Your task to perform on an android device: Search for the best rated headphones on amazon.com Image 0: 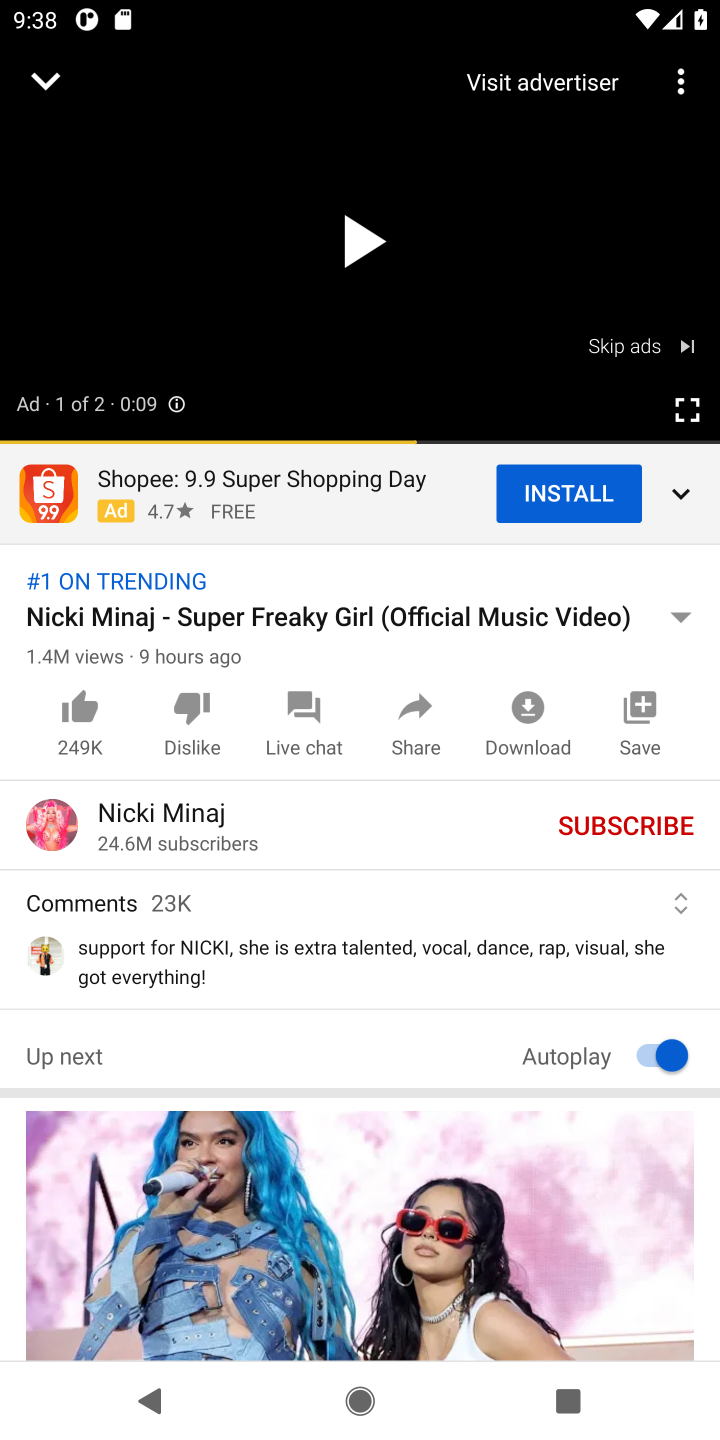
Step 0: press back button
Your task to perform on an android device: Search for the best rated headphones on amazon.com Image 1: 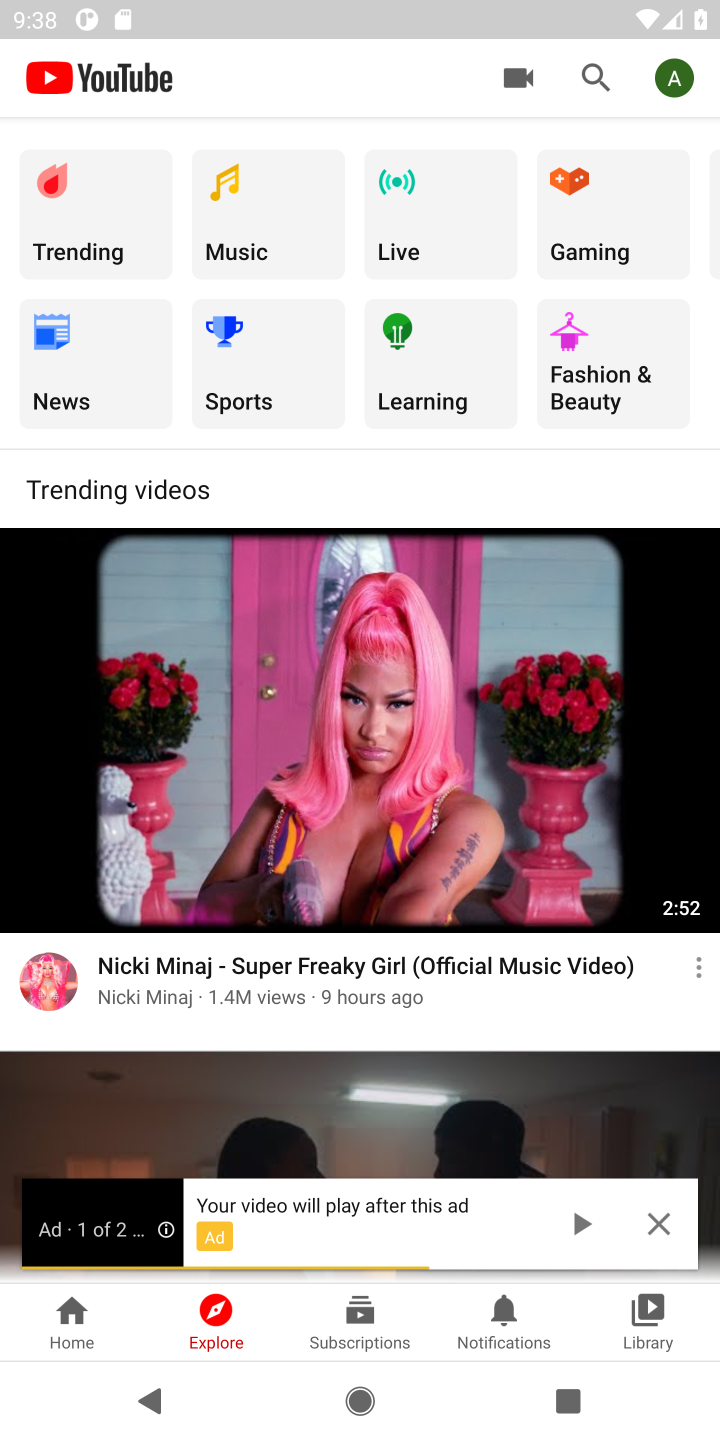
Step 1: press back button
Your task to perform on an android device: Search for the best rated headphones on amazon.com Image 2: 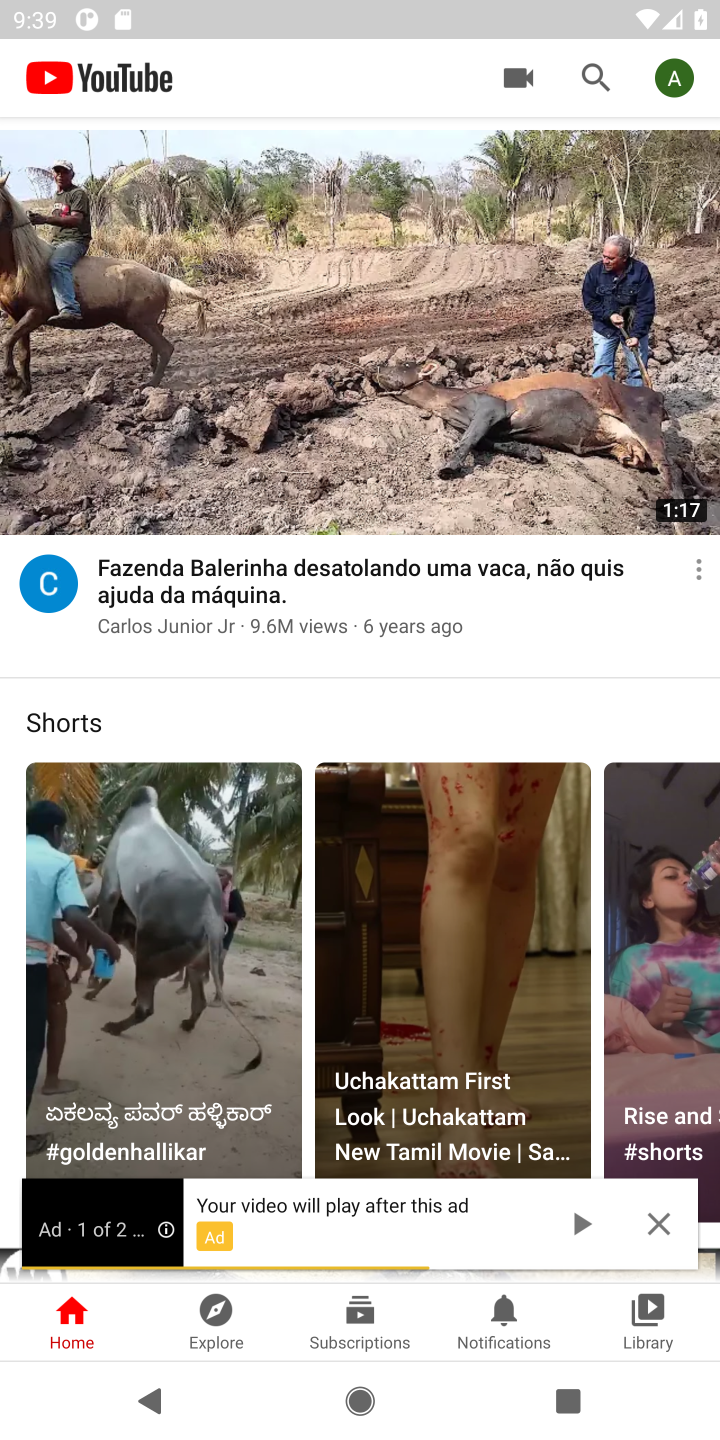
Step 2: press back button
Your task to perform on an android device: Search for the best rated headphones on amazon.com Image 3: 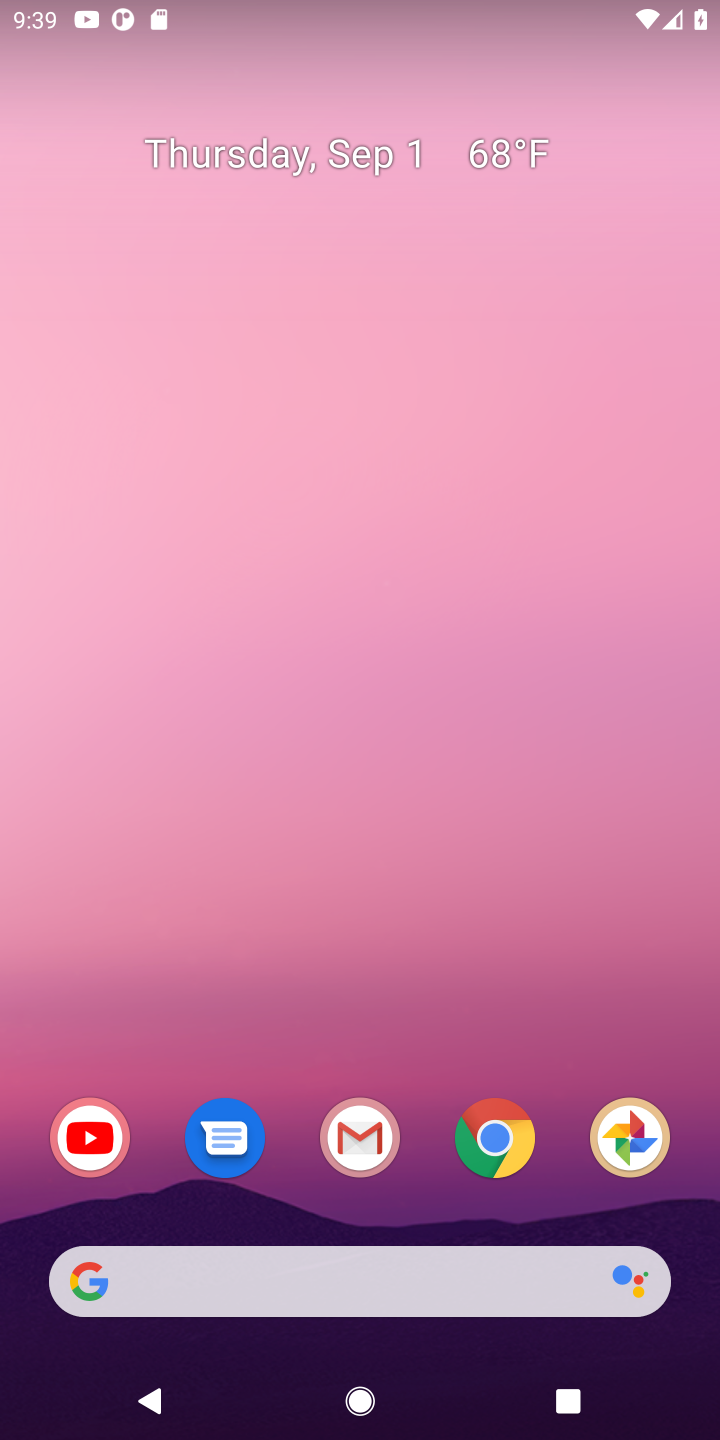
Step 3: click (207, 1288)
Your task to perform on an android device: Search for the best rated headphones on amazon.com Image 4: 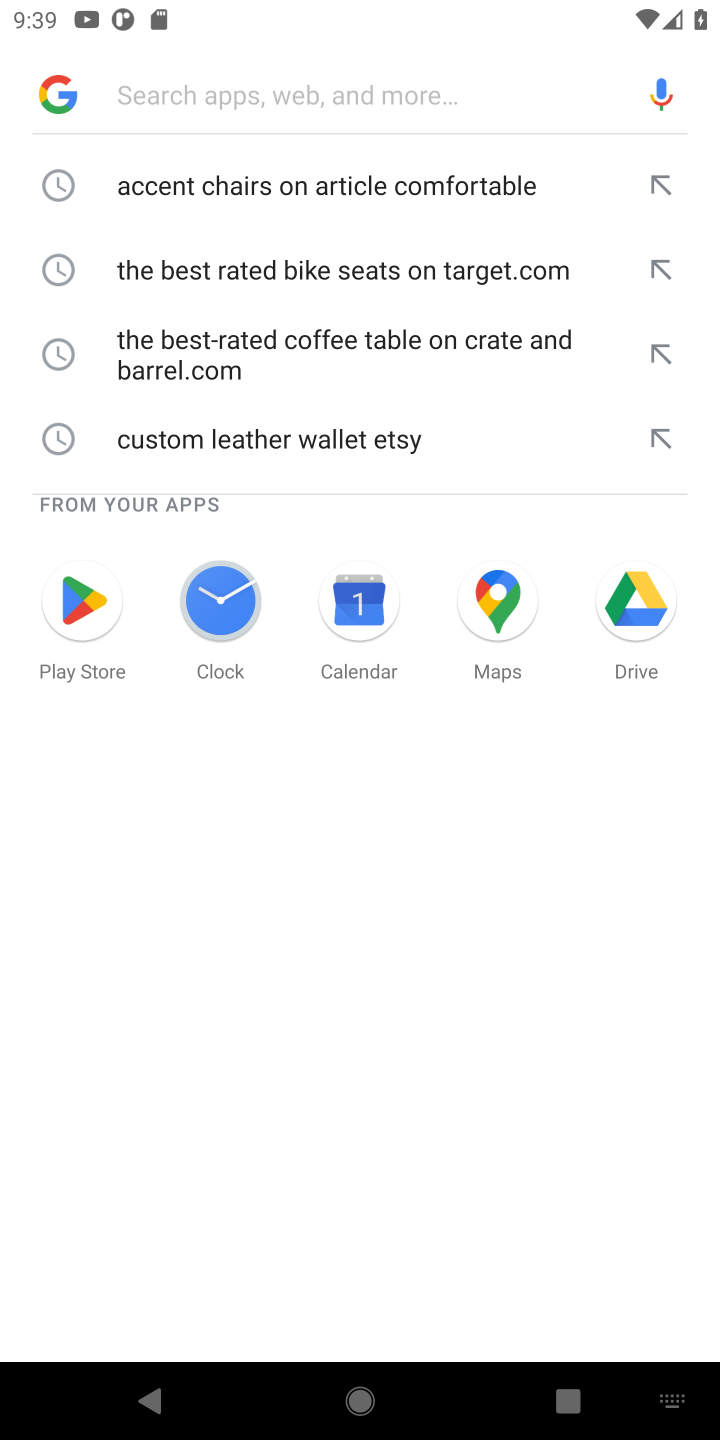
Step 4: type " best rated headphones on amazon.com"
Your task to perform on an android device: Search for the best rated headphones on amazon.com Image 5: 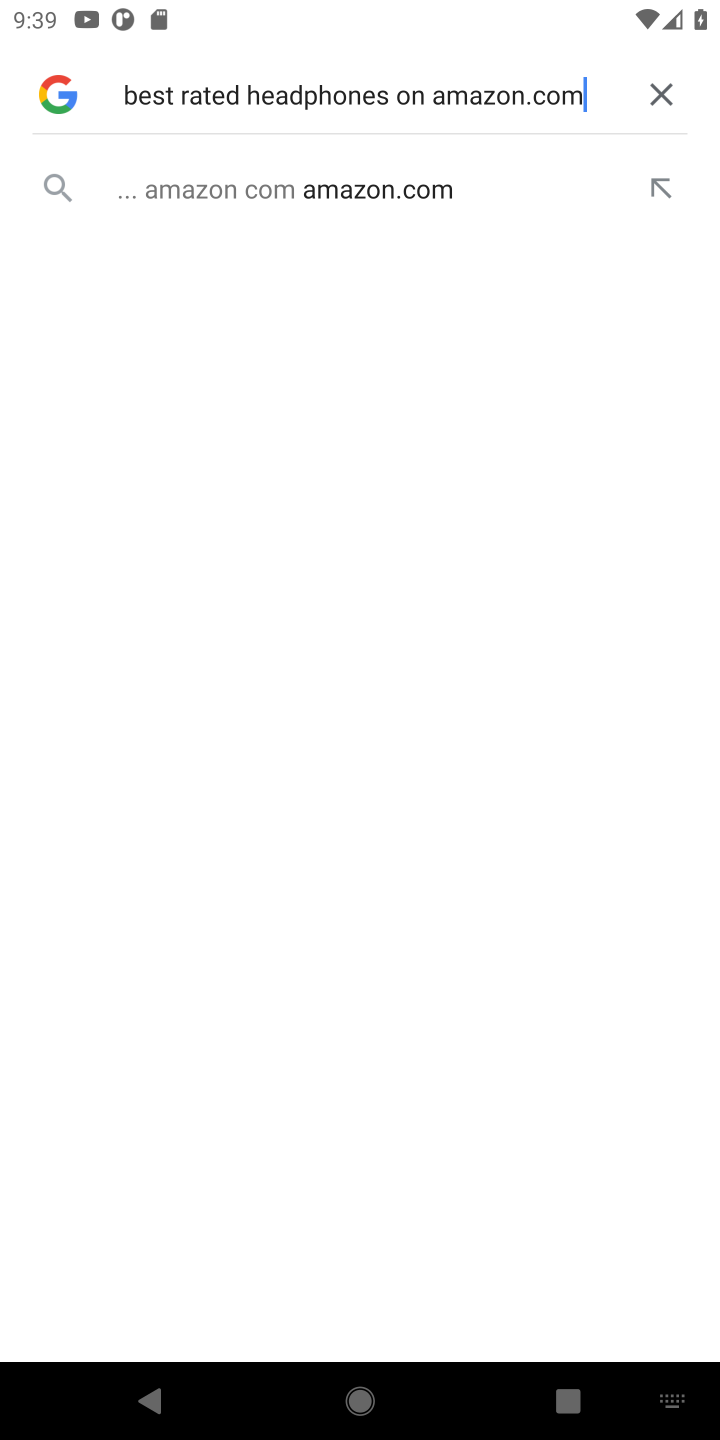
Step 5: click (400, 195)
Your task to perform on an android device: Search for the best rated headphones on amazon.com Image 6: 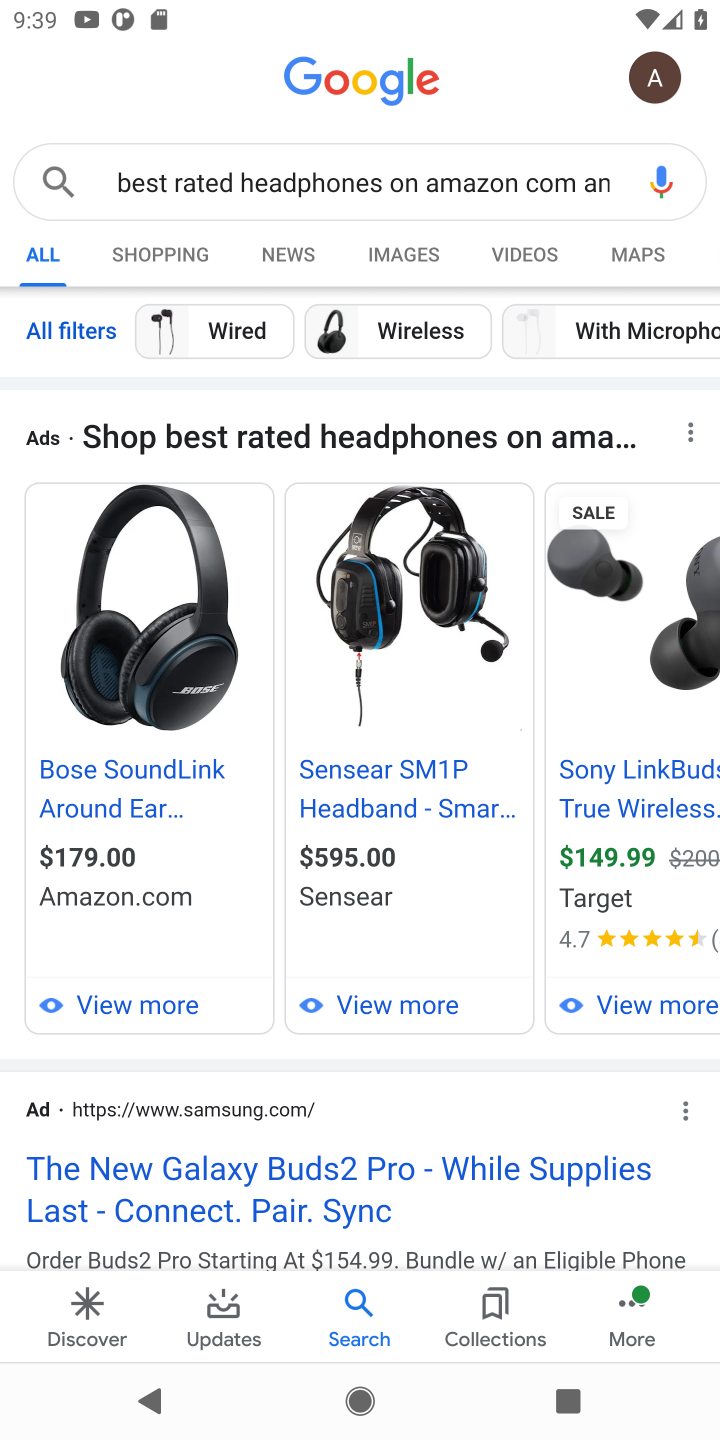
Step 6: drag from (477, 800) to (193, 788)
Your task to perform on an android device: Search for the best rated headphones on amazon.com Image 7: 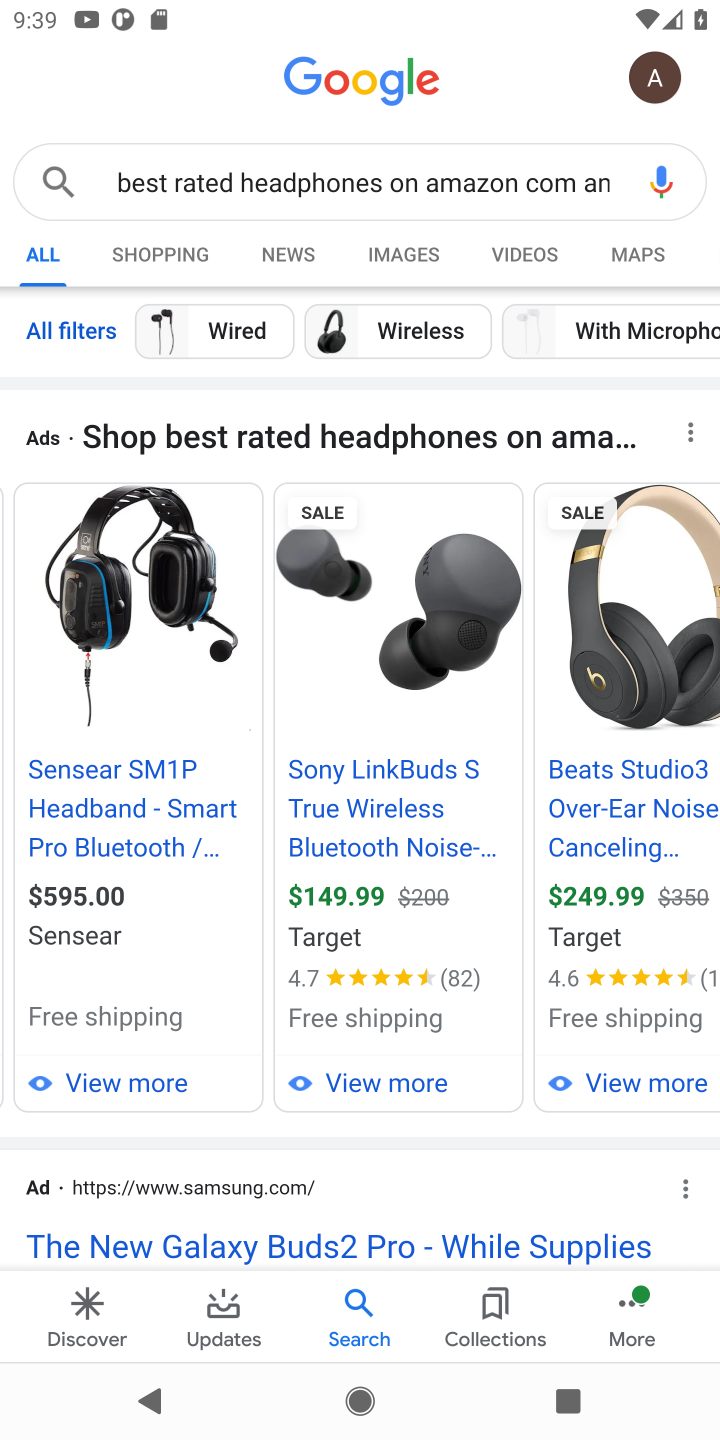
Step 7: click (410, 979)
Your task to perform on an android device: Search for the best rated headphones on amazon.com Image 8: 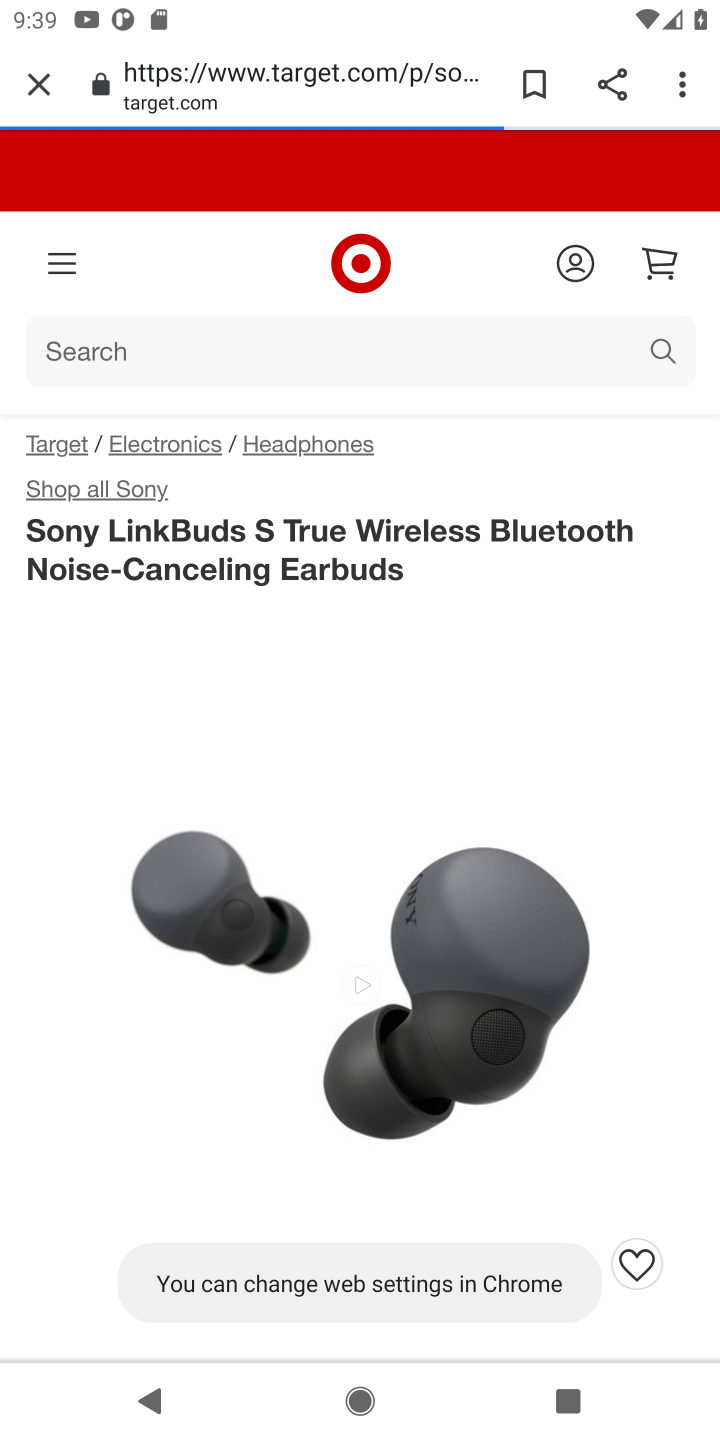
Step 8: task complete